Your task to perform on an android device: change alarm snooze length Image 0: 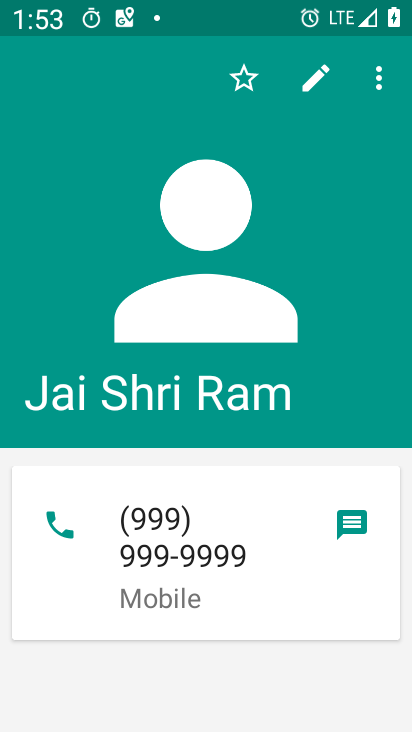
Step 0: press home button
Your task to perform on an android device: change alarm snooze length Image 1: 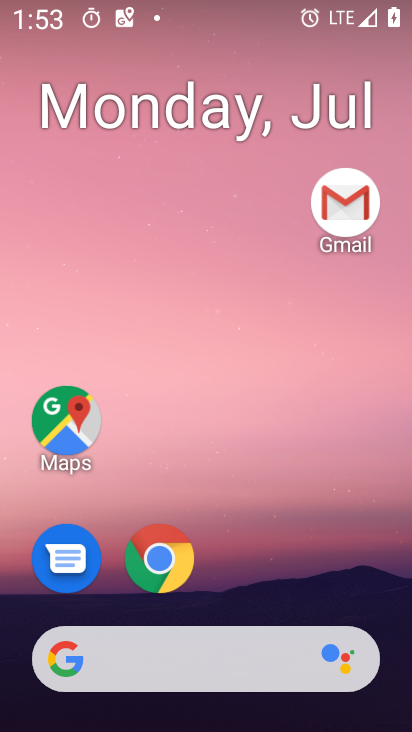
Step 1: drag from (324, 562) to (328, 166)
Your task to perform on an android device: change alarm snooze length Image 2: 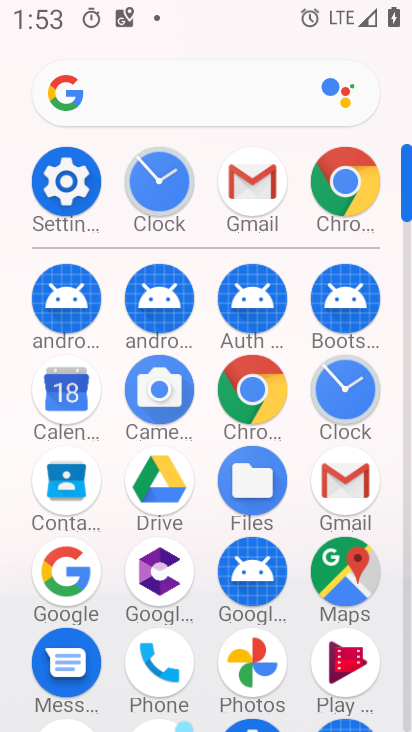
Step 2: click (348, 402)
Your task to perform on an android device: change alarm snooze length Image 3: 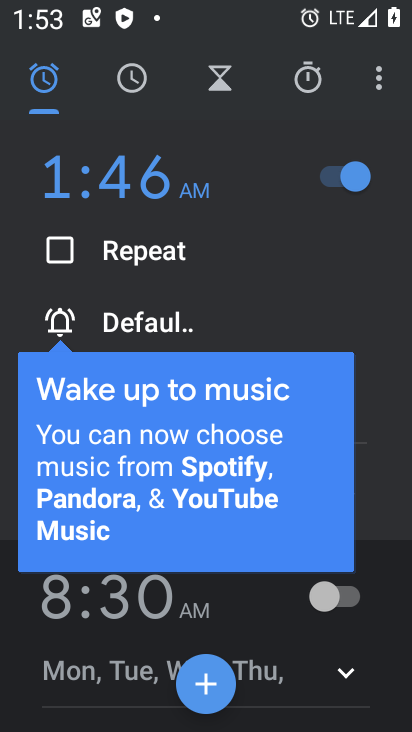
Step 3: click (381, 90)
Your task to perform on an android device: change alarm snooze length Image 4: 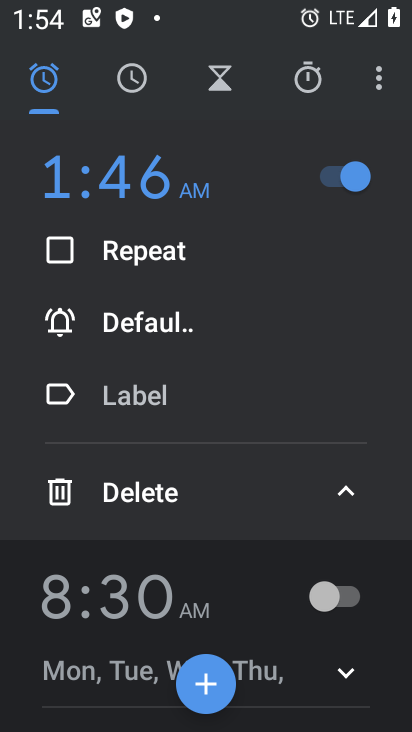
Step 4: click (381, 90)
Your task to perform on an android device: change alarm snooze length Image 5: 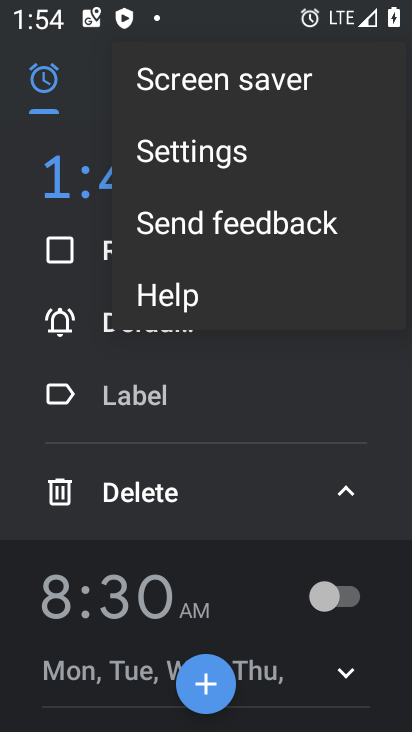
Step 5: click (299, 162)
Your task to perform on an android device: change alarm snooze length Image 6: 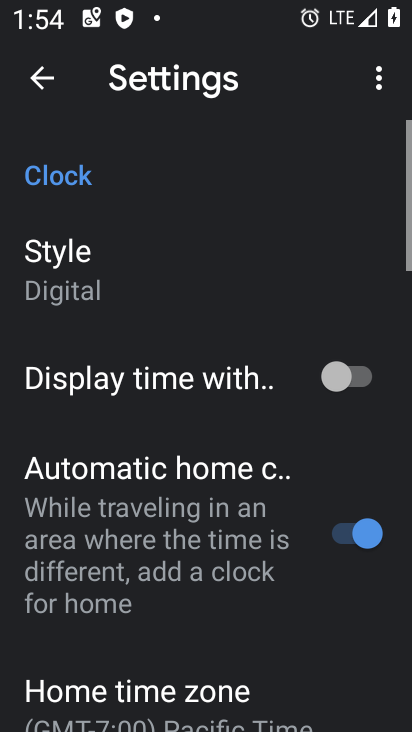
Step 6: drag from (263, 418) to (272, 354)
Your task to perform on an android device: change alarm snooze length Image 7: 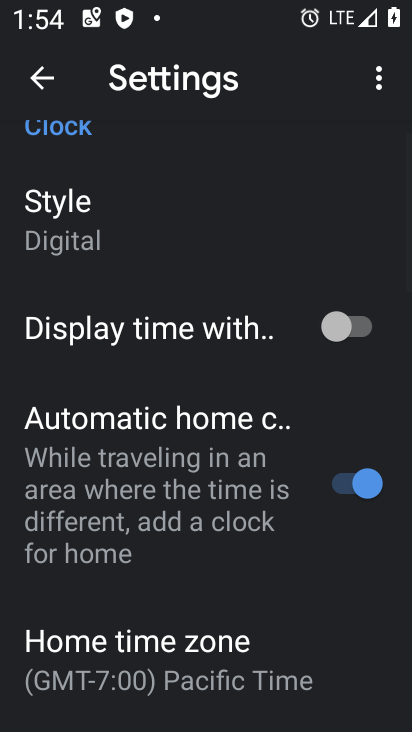
Step 7: drag from (271, 461) to (272, 377)
Your task to perform on an android device: change alarm snooze length Image 8: 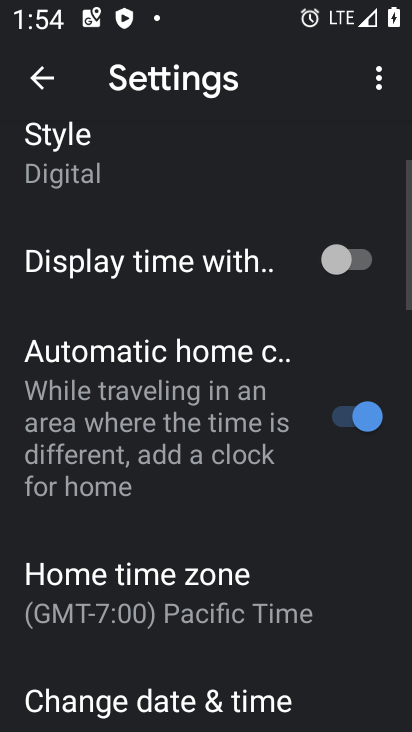
Step 8: drag from (277, 469) to (278, 395)
Your task to perform on an android device: change alarm snooze length Image 9: 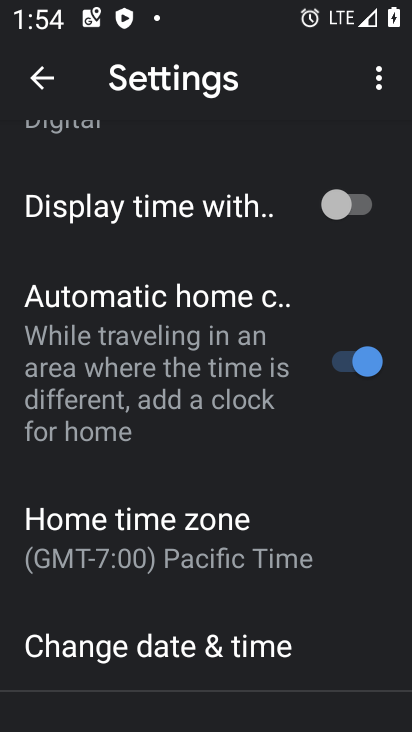
Step 9: drag from (272, 450) to (272, 373)
Your task to perform on an android device: change alarm snooze length Image 10: 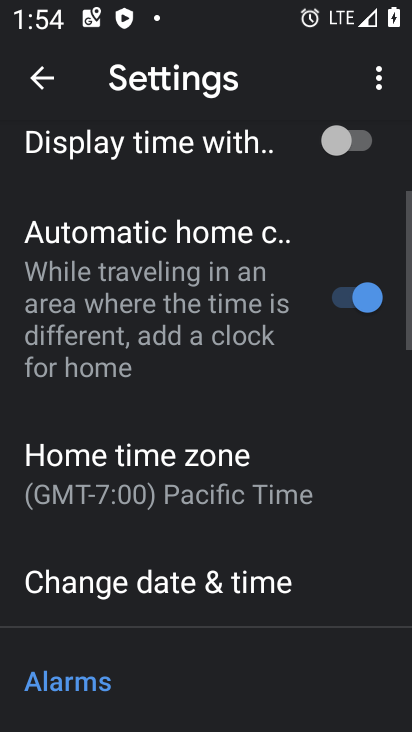
Step 10: drag from (273, 453) to (284, 353)
Your task to perform on an android device: change alarm snooze length Image 11: 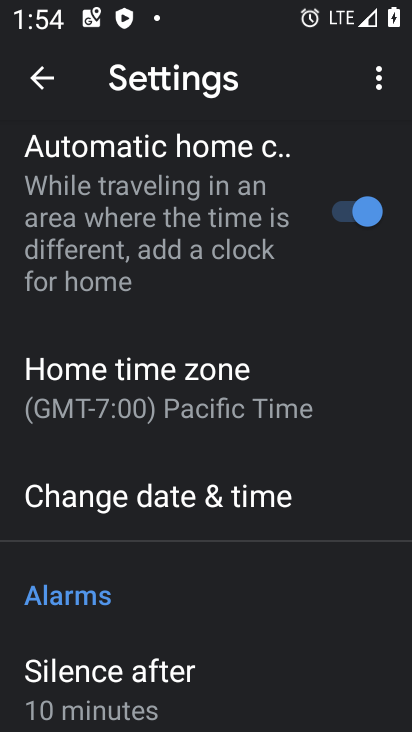
Step 11: drag from (301, 541) to (323, 368)
Your task to perform on an android device: change alarm snooze length Image 12: 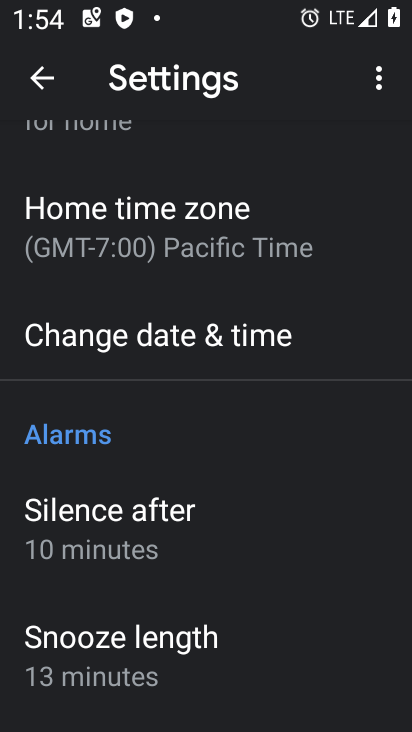
Step 12: drag from (308, 516) to (308, 417)
Your task to perform on an android device: change alarm snooze length Image 13: 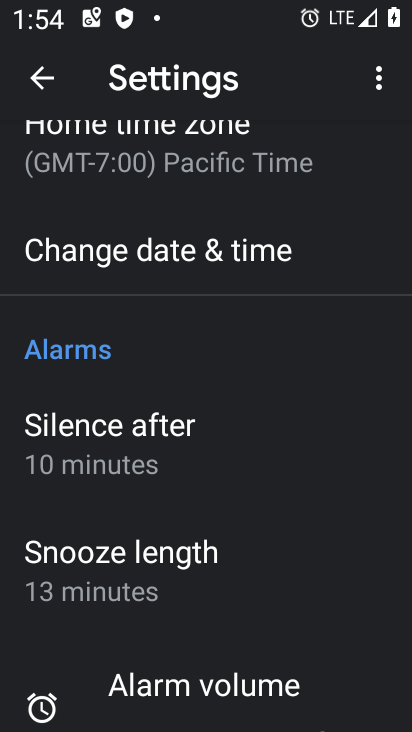
Step 13: drag from (289, 511) to (296, 381)
Your task to perform on an android device: change alarm snooze length Image 14: 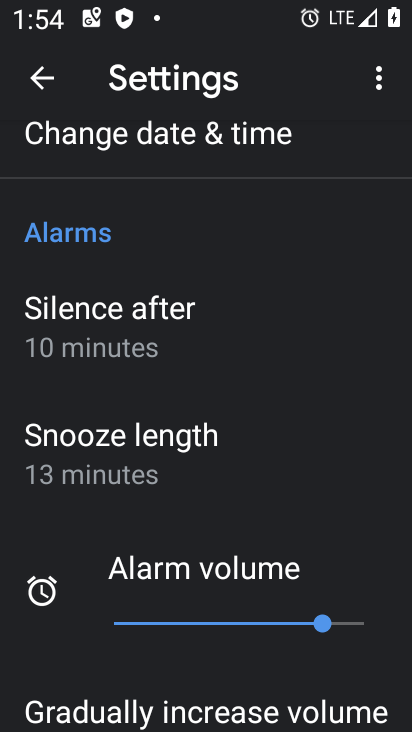
Step 14: click (207, 453)
Your task to perform on an android device: change alarm snooze length Image 15: 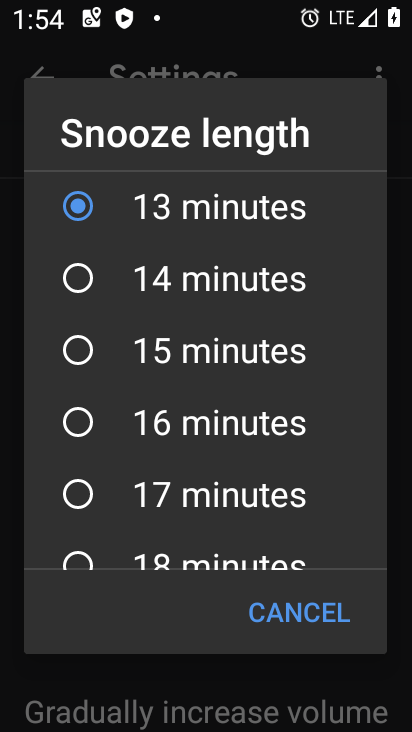
Step 15: click (208, 433)
Your task to perform on an android device: change alarm snooze length Image 16: 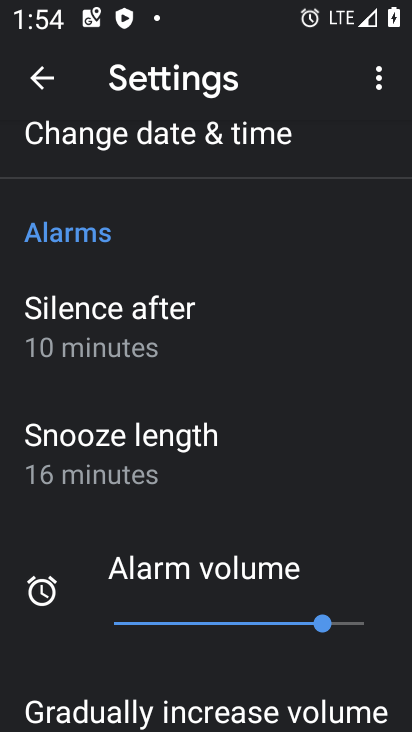
Step 16: task complete